Your task to perform on an android device: turn on improve location accuracy Image 0: 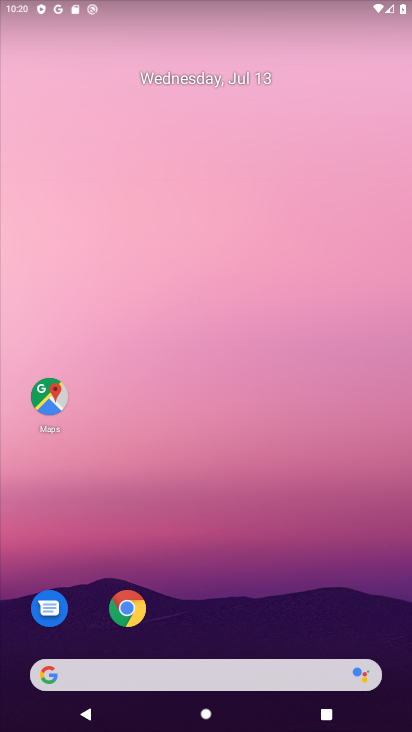
Step 0: drag from (277, 591) to (299, 16)
Your task to perform on an android device: turn on improve location accuracy Image 1: 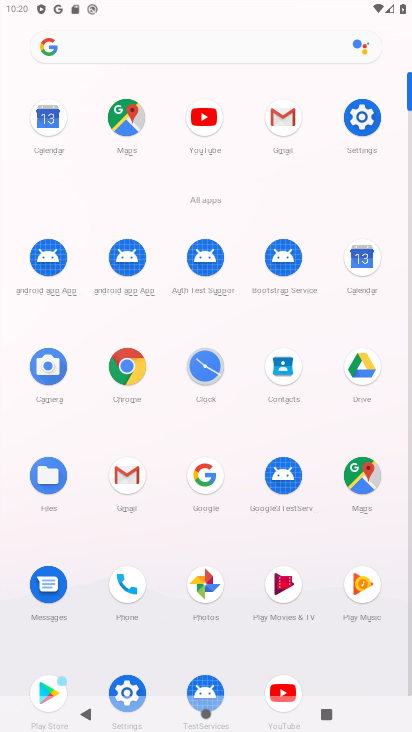
Step 1: click (358, 122)
Your task to perform on an android device: turn on improve location accuracy Image 2: 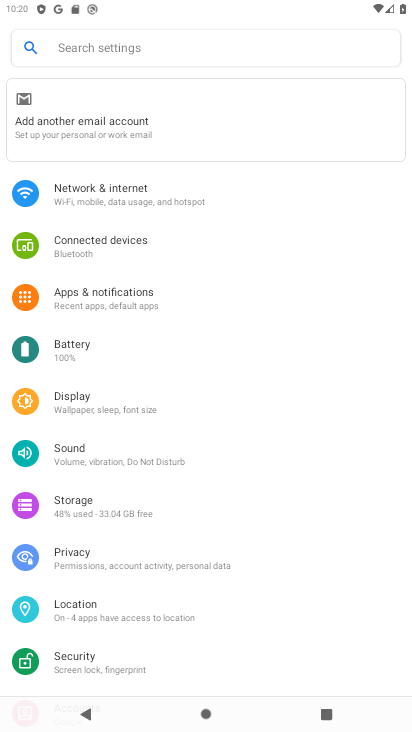
Step 2: click (100, 612)
Your task to perform on an android device: turn on improve location accuracy Image 3: 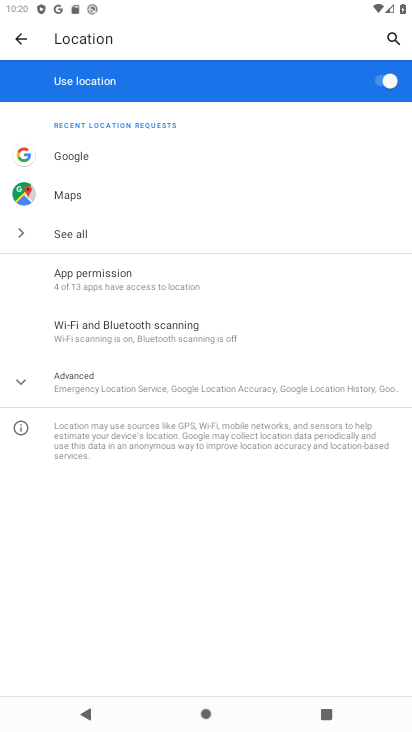
Step 3: click (145, 376)
Your task to perform on an android device: turn on improve location accuracy Image 4: 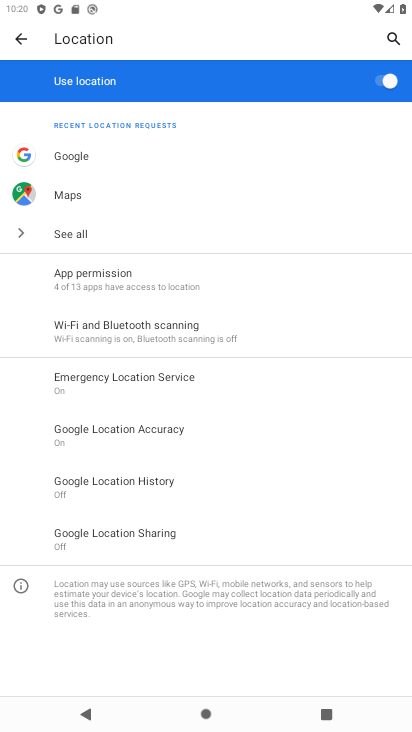
Step 4: click (143, 438)
Your task to perform on an android device: turn on improve location accuracy Image 5: 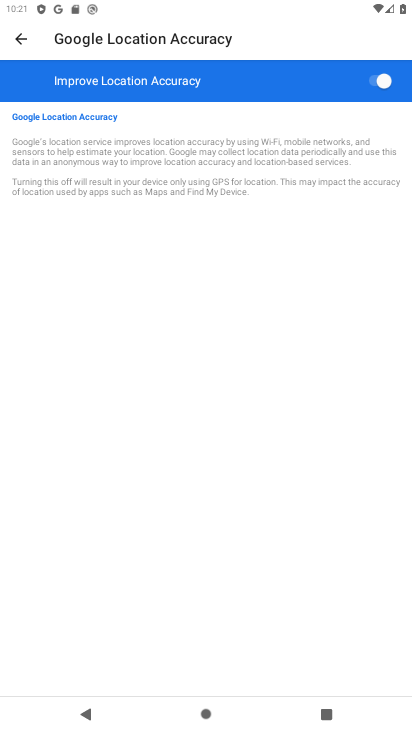
Step 5: task complete